Your task to perform on an android device: Open Wikipedia Image 0: 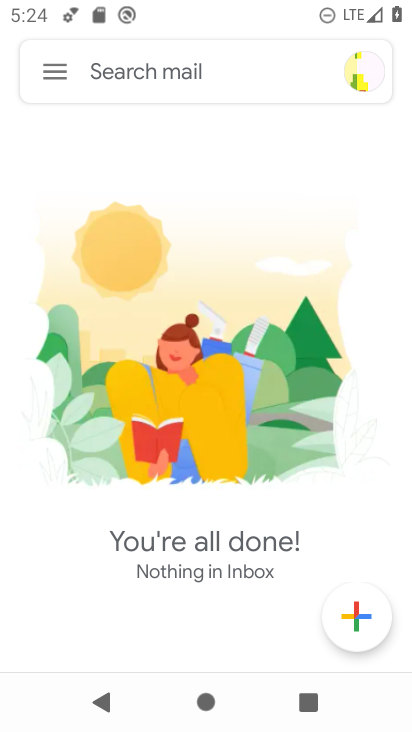
Step 0: press home button
Your task to perform on an android device: Open Wikipedia Image 1: 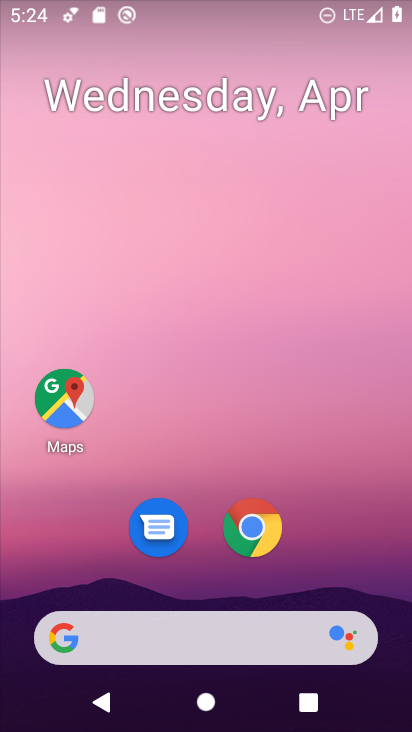
Step 1: click (260, 537)
Your task to perform on an android device: Open Wikipedia Image 2: 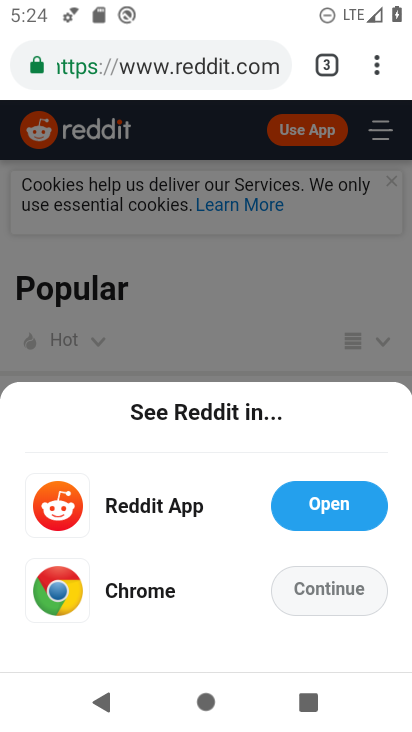
Step 2: click (173, 71)
Your task to perform on an android device: Open Wikipedia Image 3: 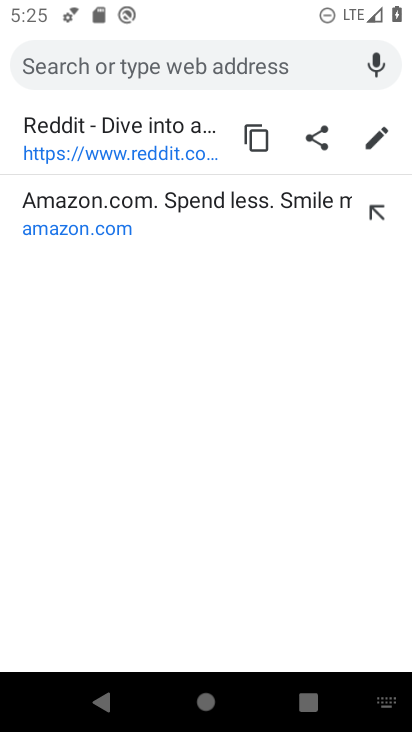
Step 3: type "wikipedia"
Your task to perform on an android device: Open Wikipedia Image 4: 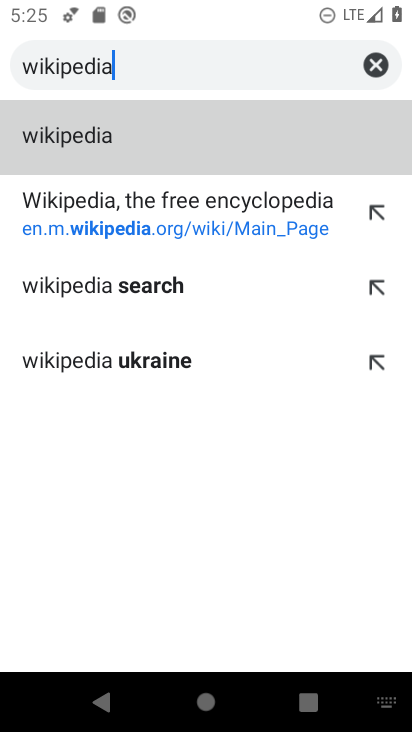
Step 4: click (65, 135)
Your task to perform on an android device: Open Wikipedia Image 5: 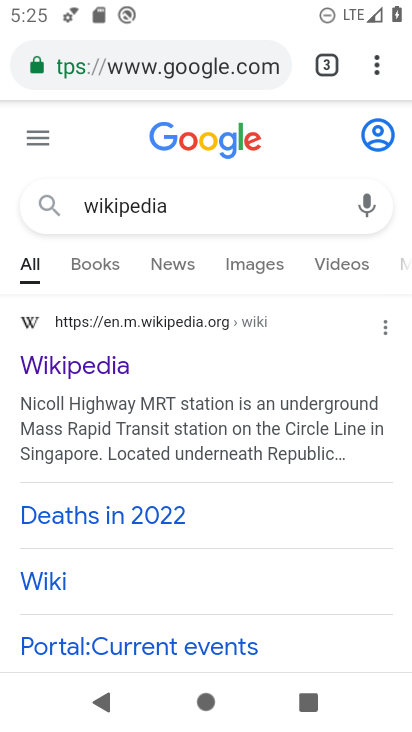
Step 5: click (87, 379)
Your task to perform on an android device: Open Wikipedia Image 6: 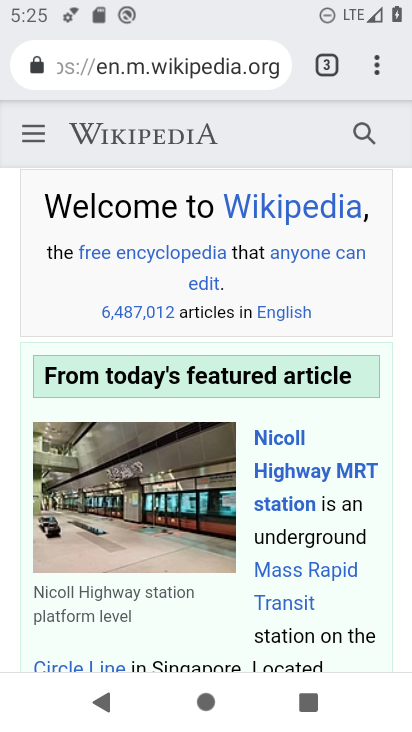
Step 6: task complete